Your task to perform on an android device: delete browsing data in the chrome app Image 0: 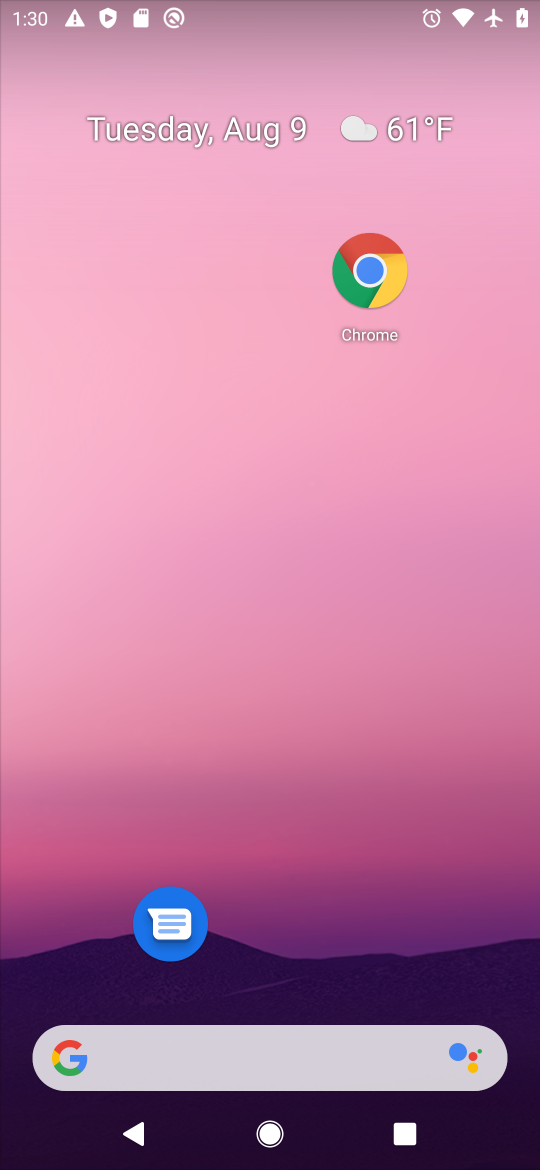
Step 0: drag from (336, 1003) to (281, 1)
Your task to perform on an android device: delete browsing data in the chrome app Image 1: 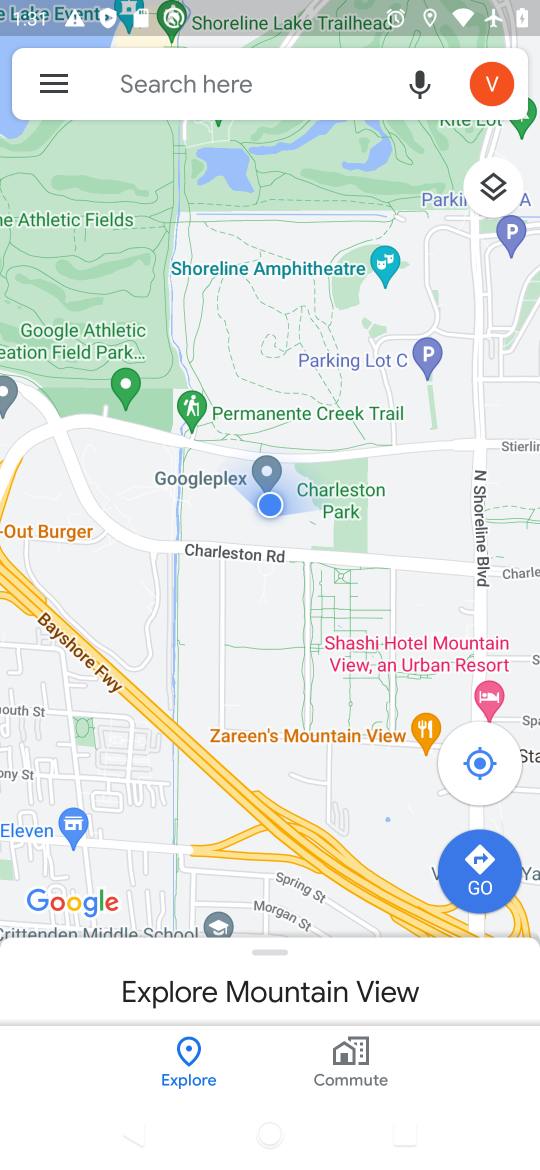
Step 1: task complete